Your task to perform on an android device: turn on data saver in the chrome app Image 0: 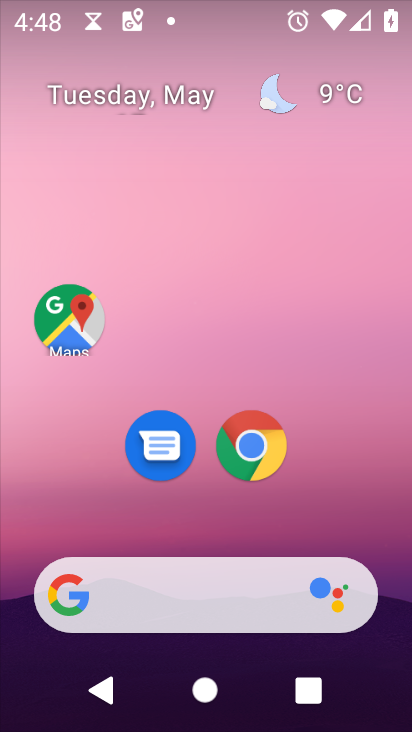
Step 0: drag from (248, 586) to (207, 89)
Your task to perform on an android device: turn on data saver in the chrome app Image 1: 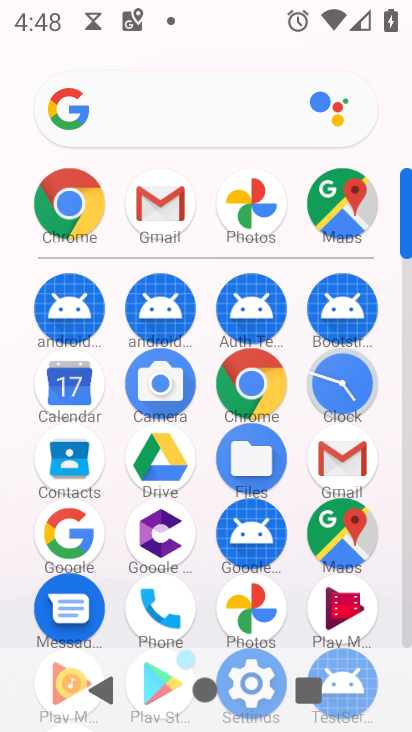
Step 1: click (246, 389)
Your task to perform on an android device: turn on data saver in the chrome app Image 2: 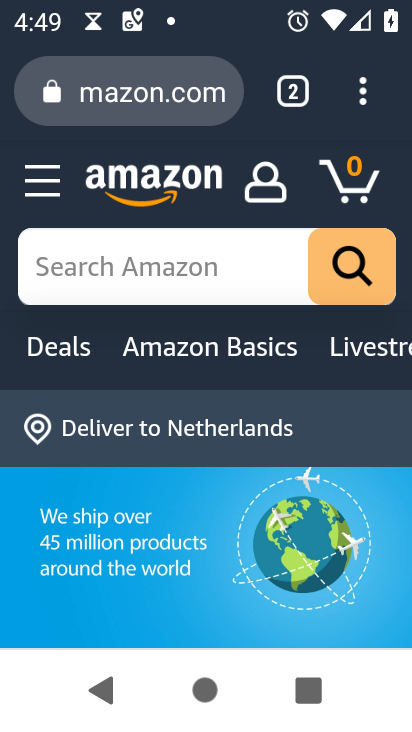
Step 2: click (363, 100)
Your task to perform on an android device: turn on data saver in the chrome app Image 3: 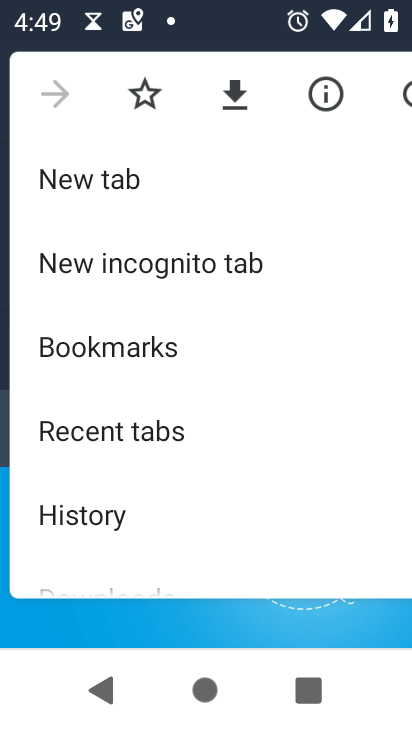
Step 3: drag from (175, 511) to (194, 6)
Your task to perform on an android device: turn on data saver in the chrome app Image 4: 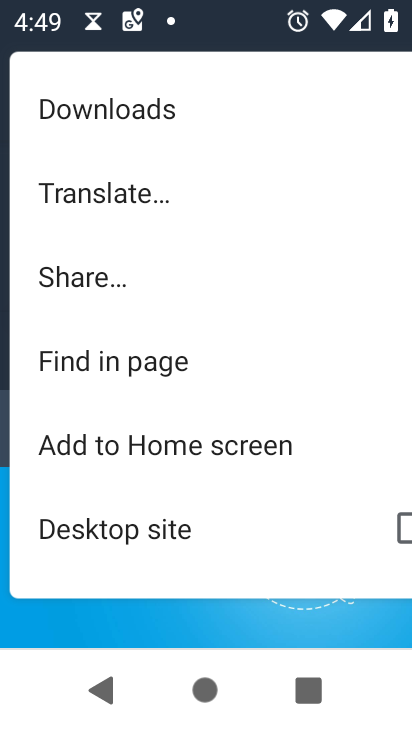
Step 4: drag from (160, 456) to (144, 196)
Your task to perform on an android device: turn on data saver in the chrome app Image 5: 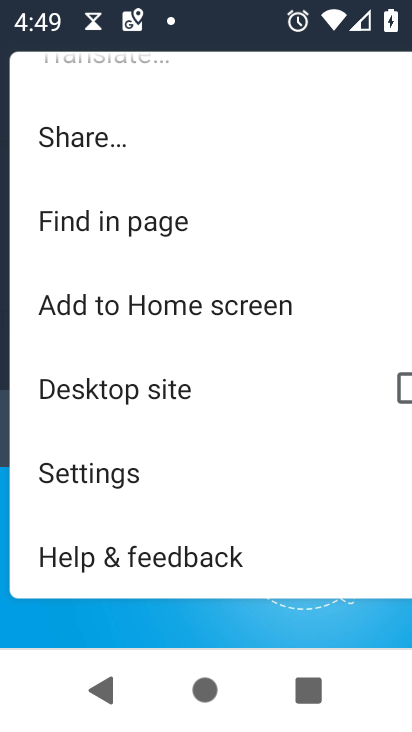
Step 5: click (129, 477)
Your task to perform on an android device: turn on data saver in the chrome app Image 6: 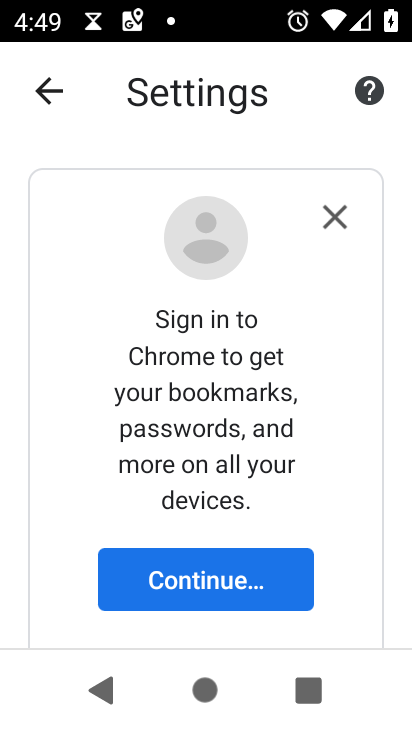
Step 6: drag from (313, 630) to (266, 164)
Your task to perform on an android device: turn on data saver in the chrome app Image 7: 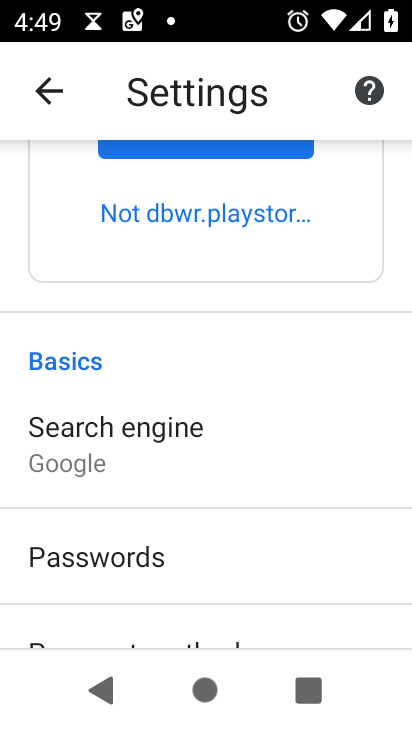
Step 7: drag from (234, 615) to (232, 227)
Your task to perform on an android device: turn on data saver in the chrome app Image 8: 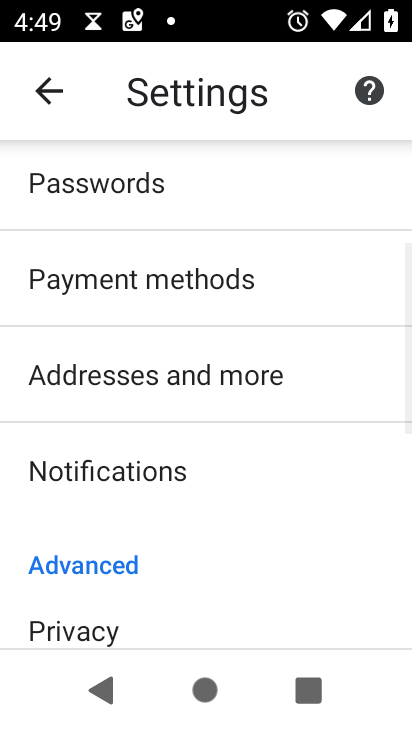
Step 8: drag from (218, 612) to (247, 112)
Your task to perform on an android device: turn on data saver in the chrome app Image 9: 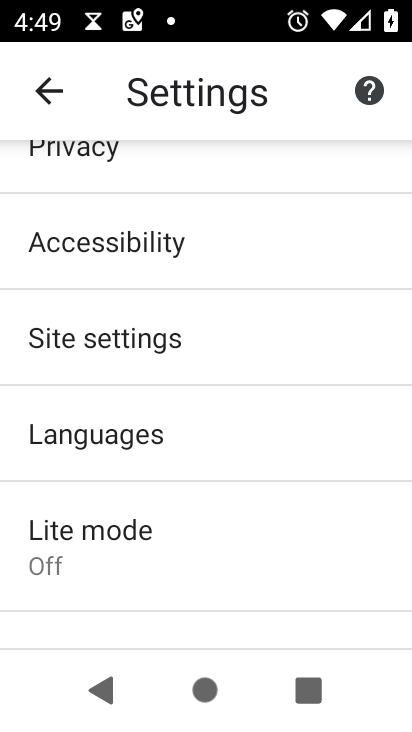
Step 9: click (117, 553)
Your task to perform on an android device: turn on data saver in the chrome app Image 10: 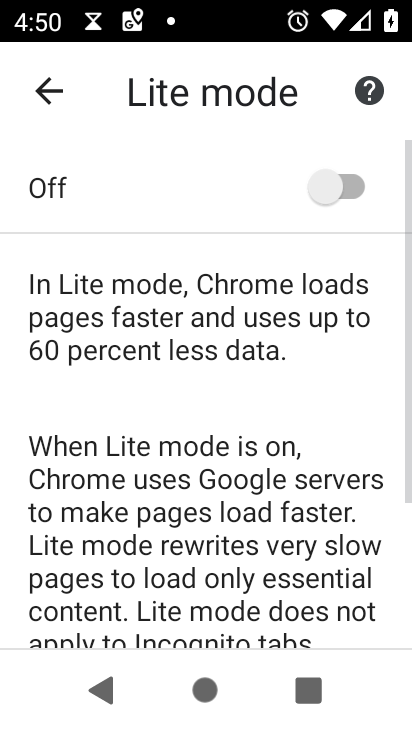
Step 10: click (358, 174)
Your task to perform on an android device: turn on data saver in the chrome app Image 11: 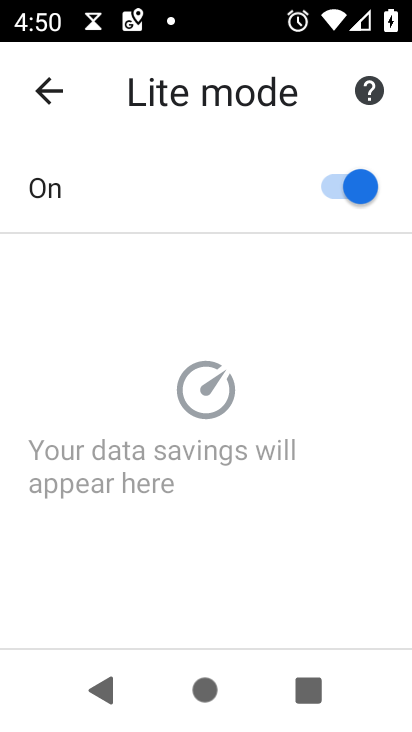
Step 11: task complete